Your task to perform on an android device: turn pop-ups off in chrome Image 0: 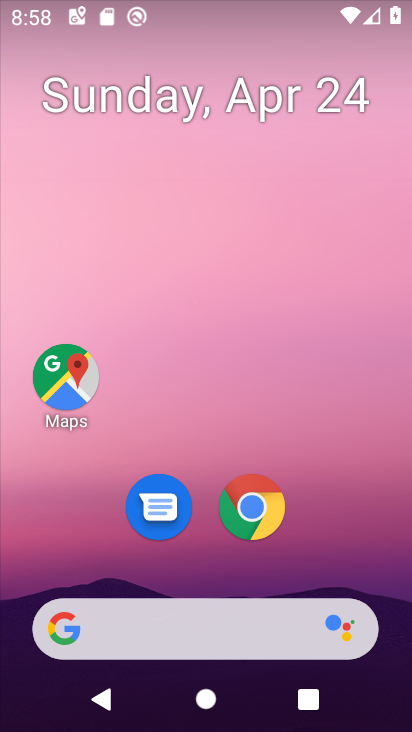
Step 0: click (281, 514)
Your task to perform on an android device: turn pop-ups off in chrome Image 1: 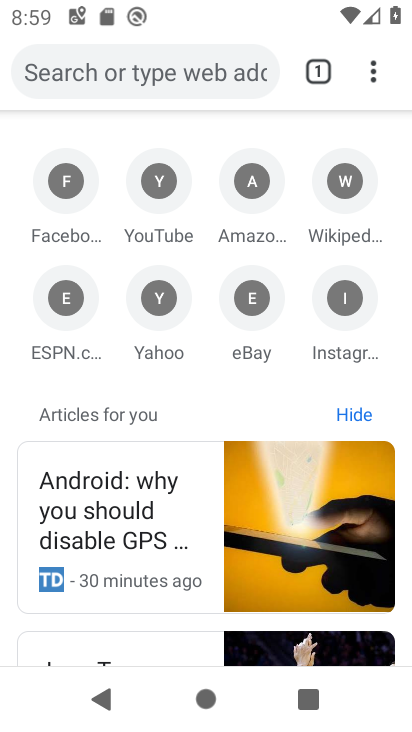
Step 1: click (376, 92)
Your task to perform on an android device: turn pop-ups off in chrome Image 2: 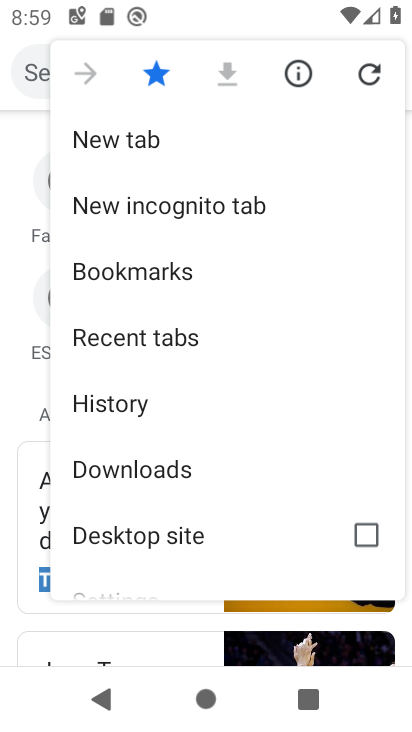
Step 2: drag from (204, 551) to (160, 282)
Your task to perform on an android device: turn pop-ups off in chrome Image 3: 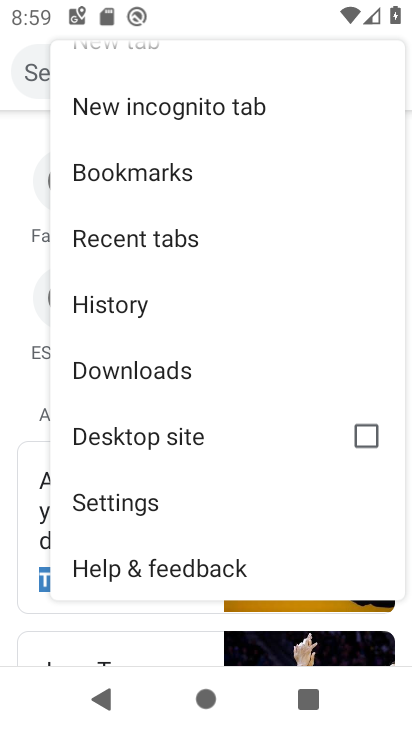
Step 3: click (138, 503)
Your task to perform on an android device: turn pop-ups off in chrome Image 4: 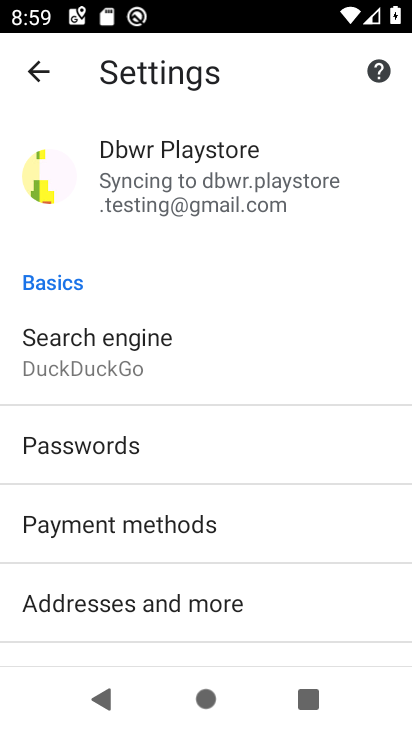
Step 4: drag from (173, 557) to (123, 171)
Your task to perform on an android device: turn pop-ups off in chrome Image 5: 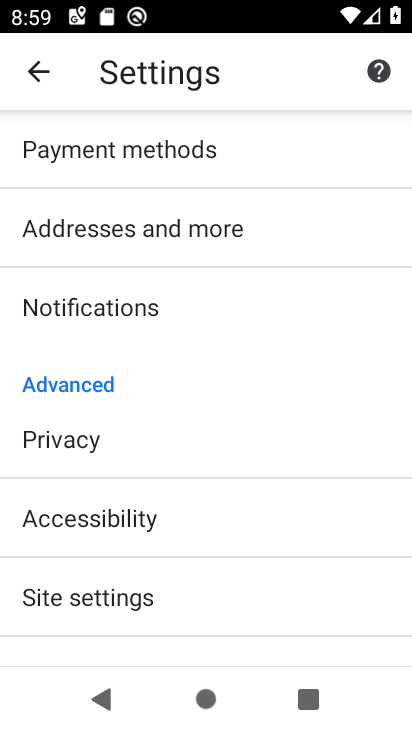
Step 5: drag from (166, 576) to (143, 277)
Your task to perform on an android device: turn pop-ups off in chrome Image 6: 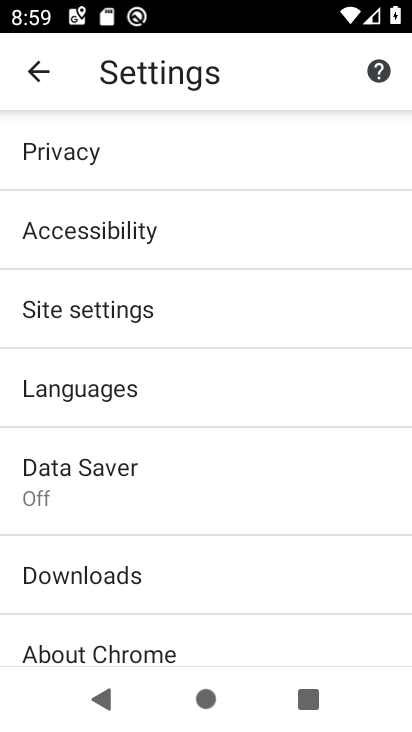
Step 6: click (136, 320)
Your task to perform on an android device: turn pop-ups off in chrome Image 7: 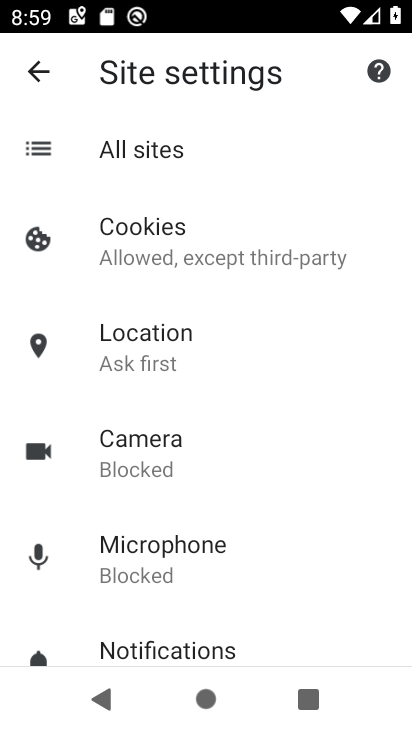
Step 7: drag from (228, 618) to (186, 346)
Your task to perform on an android device: turn pop-ups off in chrome Image 8: 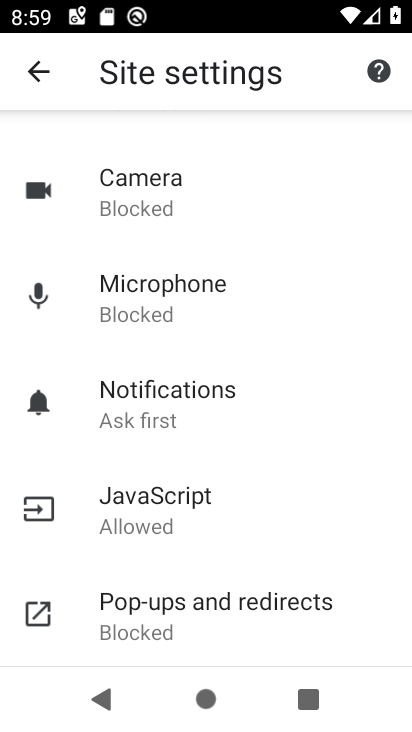
Step 8: click (171, 626)
Your task to perform on an android device: turn pop-ups off in chrome Image 9: 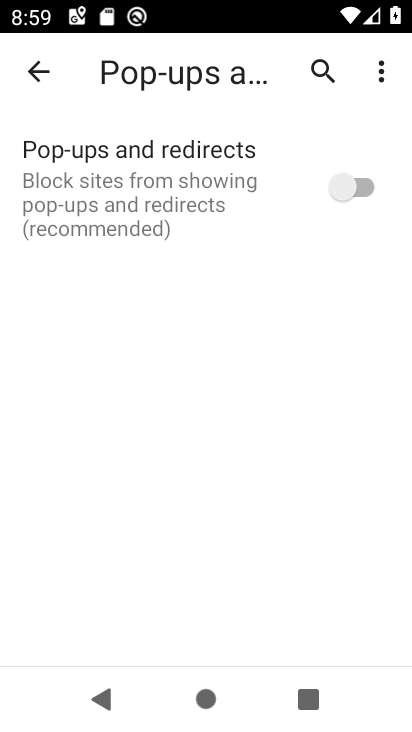
Step 9: task complete